Your task to perform on an android device: Go to Yahoo.com Image 0: 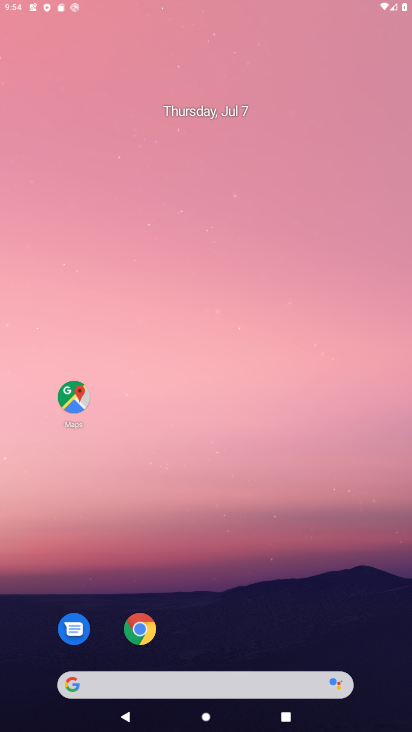
Step 0: drag from (149, 394) to (116, 165)
Your task to perform on an android device: Go to Yahoo.com Image 1: 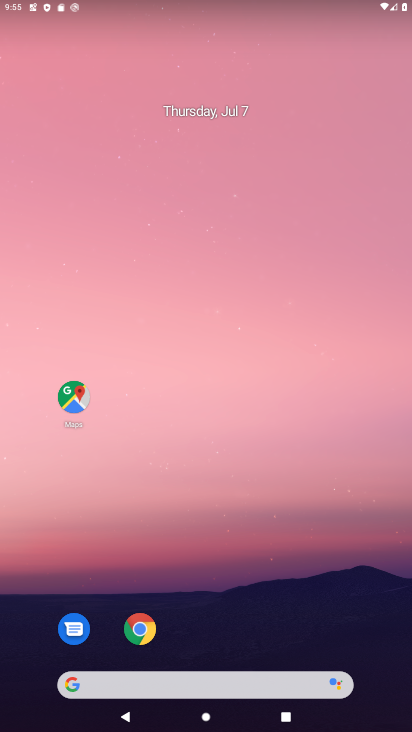
Step 1: drag from (203, 653) to (133, 103)
Your task to perform on an android device: Go to Yahoo.com Image 2: 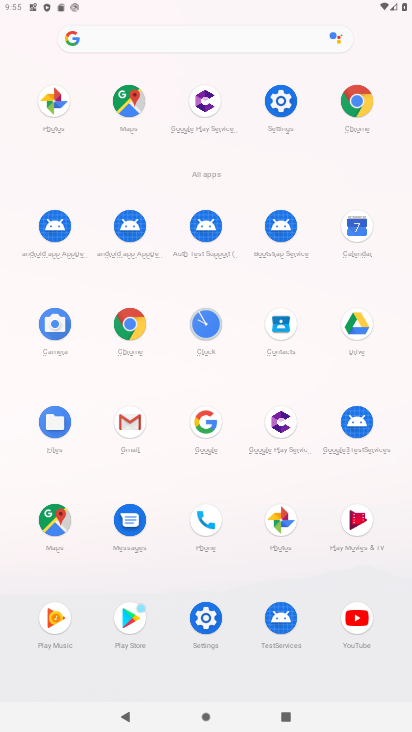
Step 2: click (136, 323)
Your task to perform on an android device: Go to Yahoo.com Image 3: 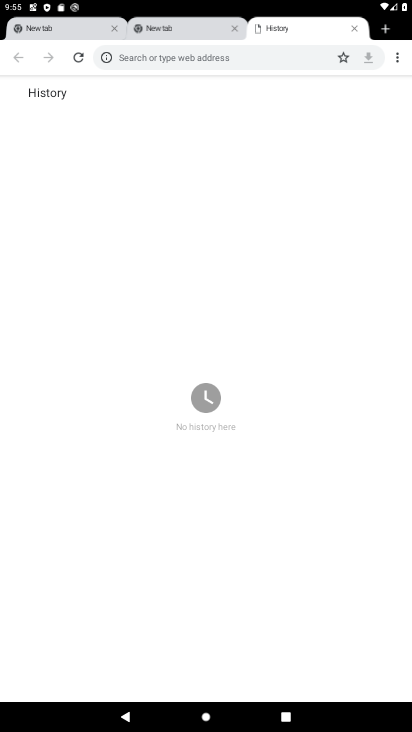
Step 3: click (173, 30)
Your task to perform on an android device: Go to Yahoo.com Image 4: 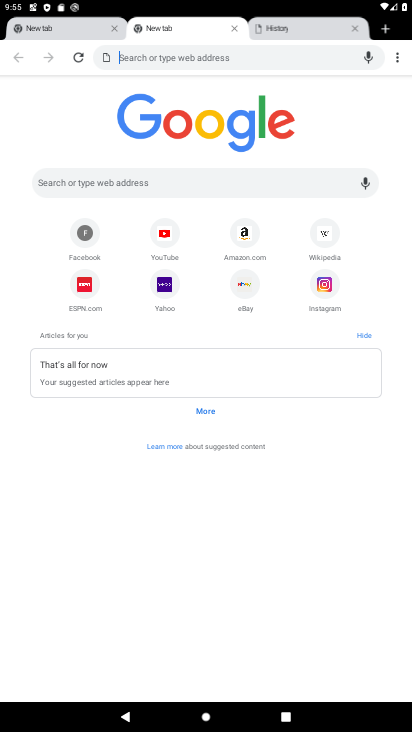
Step 4: click (164, 270)
Your task to perform on an android device: Go to Yahoo.com Image 5: 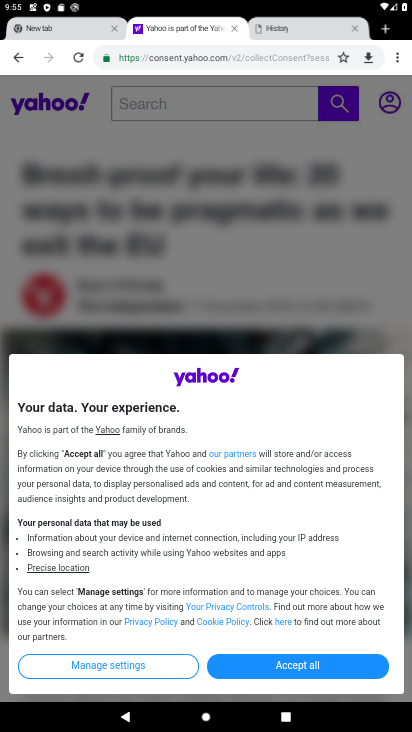
Step 5: click (307, 661)
Your task to perform on an android device: Go to Yahoo.com Image 6: 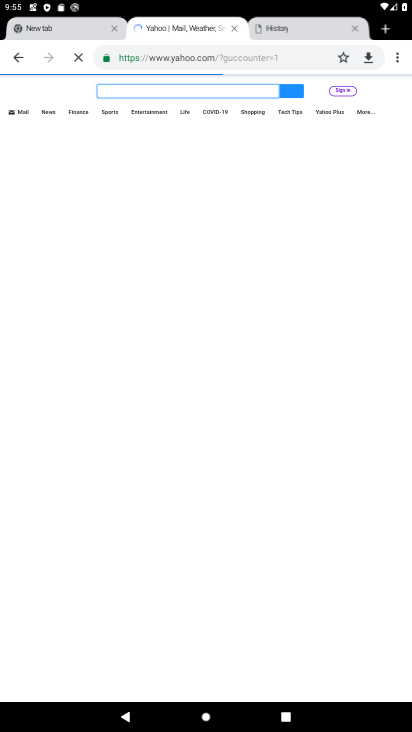
Step 6: task complete